Your task to perform on an android device: delete a single message in the gmail app Image 0: 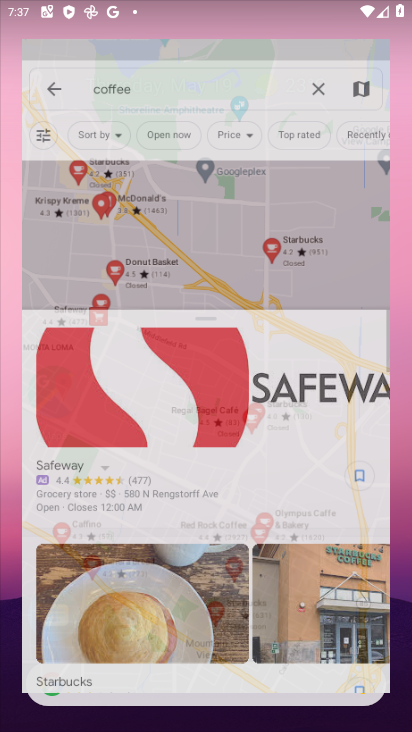
Step 0: drag from (303, 619) to (311, 113)
Your task to perform on an android device: delete a single message in the gmail app Image 1: 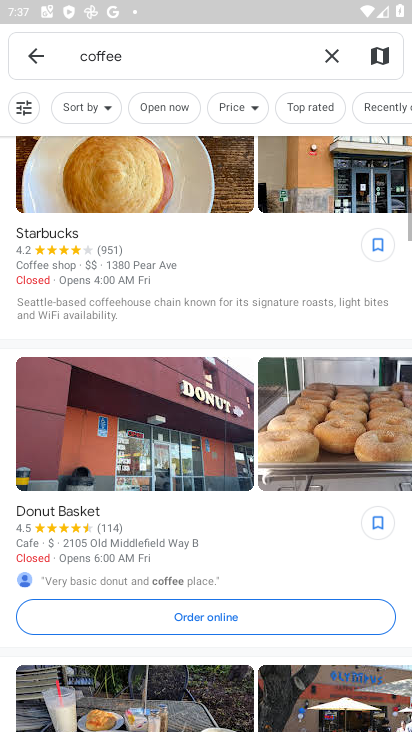
Step 1: press home button
Your task to perform on an android device: delete a single message in the gmail app Image 2: 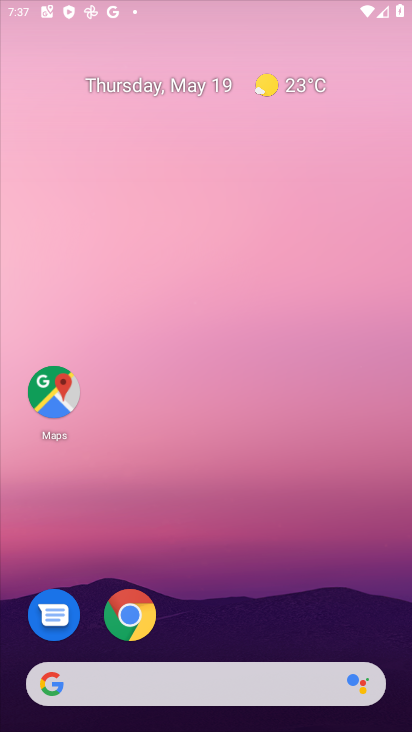
Step 2: drag from (328, 632) to (273, 128)
Your task to perform on an android device: delete a single message in the gmail app Image 3: 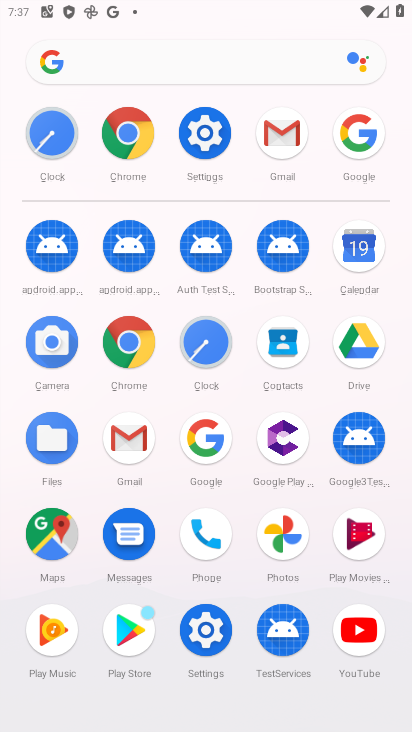
Step 3: click (132, 432)
Your task to perform on an android device: delete a single message in the gmail app Image 4: 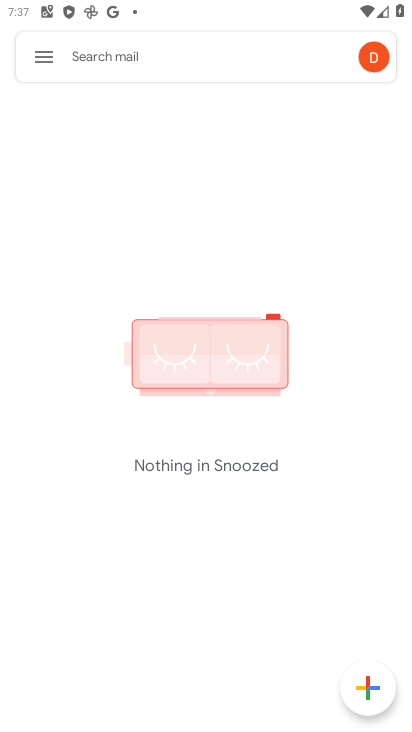
Step 4: click (27, 22)
Your task to perform on an android device: delete a single message in the gmail app Image 5: 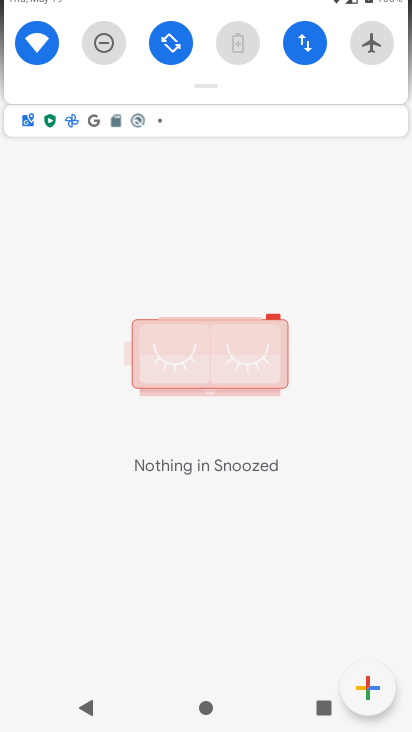
Step 5: click (37, 55)
Your task to perform on an android device: delete a single message in the gmail app Image 6: 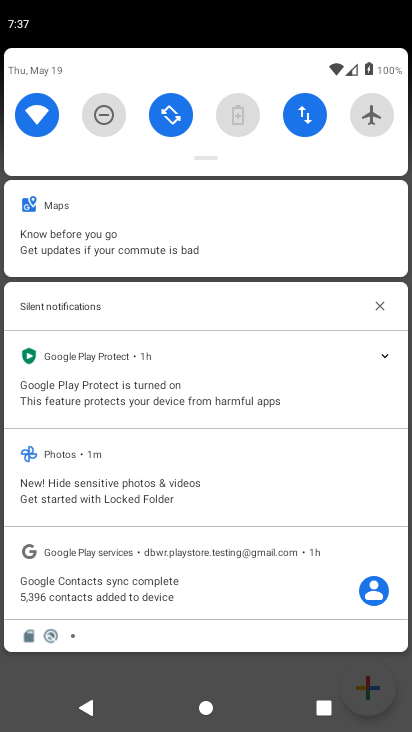
Step 6: drag from (87, 664) to (232, 29)
Your task to perform on an android device: delete a single message in the gmail app Image 7: 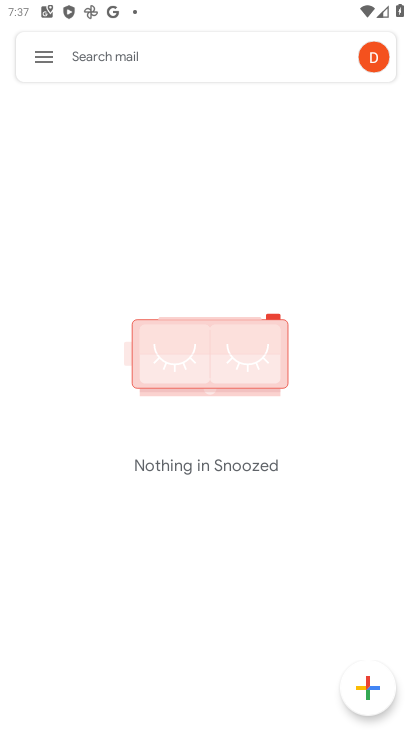
Step 7: click (48, 48)
Your task to perform on an android device: delete a single message in the gmail app Image 8: 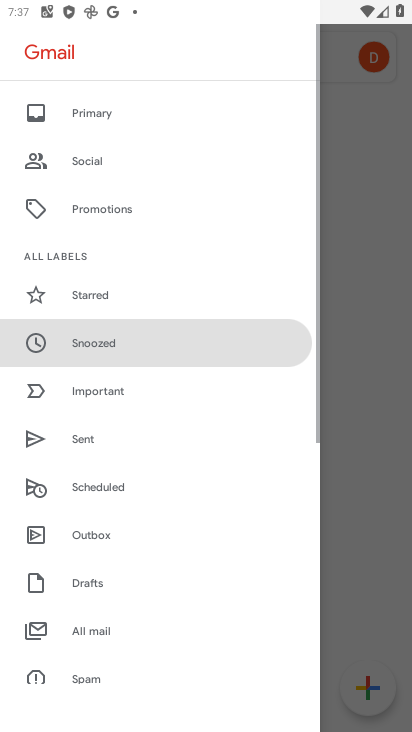
Step 8: drag from (139, 107) to (134, 587)
Your task to perform on an android device: delete a single message in the gmail app Image 9: 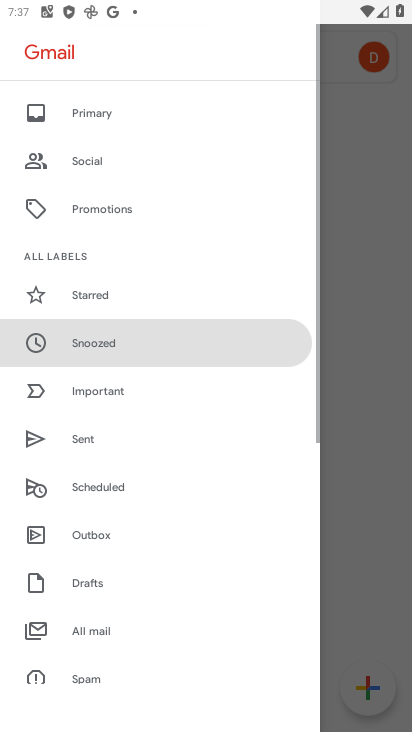
Step 9: click (126, 120)
Your task to perform on an android device: delete a single message in the gmail app Image 10: 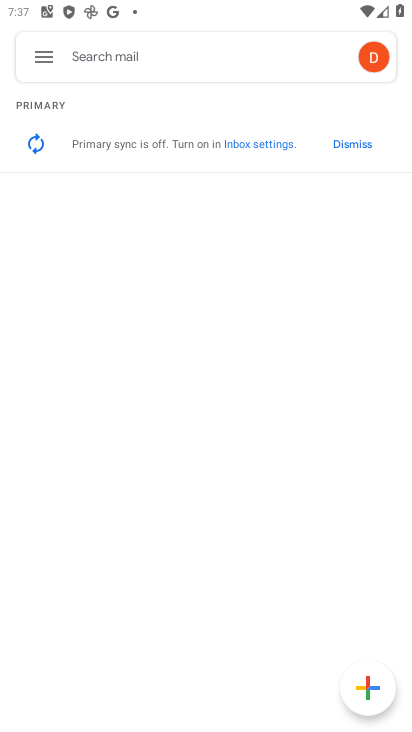
Step 10: task complete